Your task to perform on an android device: find which apps use the phone's location Image 0: 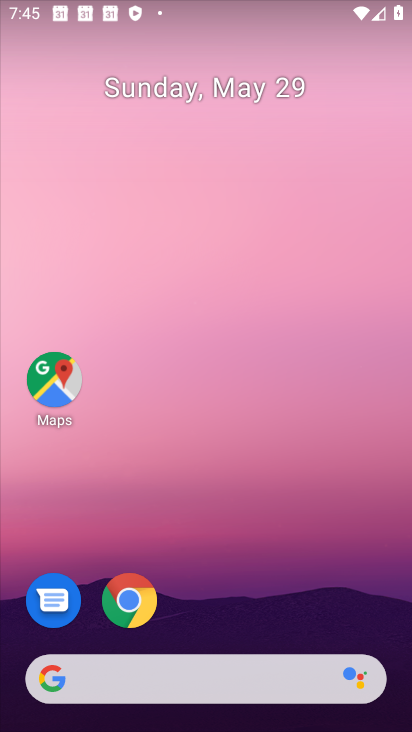
Step 0: drag from (253, 504) to (253, 214)
Your task to perform on an android device: find which apps use the phone's location Image 1: 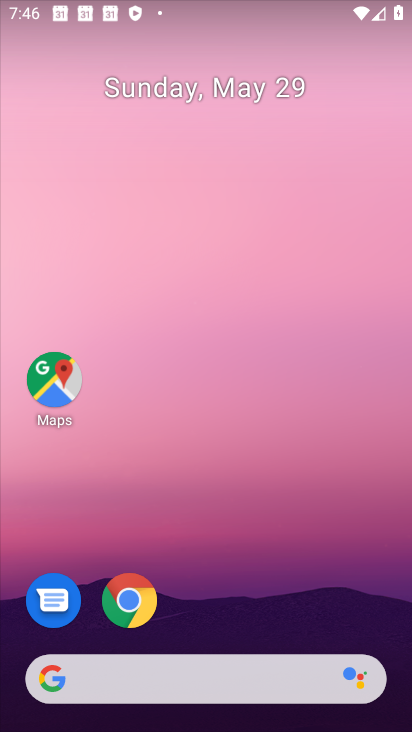
Step 1: drag from (310, 575) to (302, 206)
Your task to perform on an android device: find which apps use the phone's location Image 2: 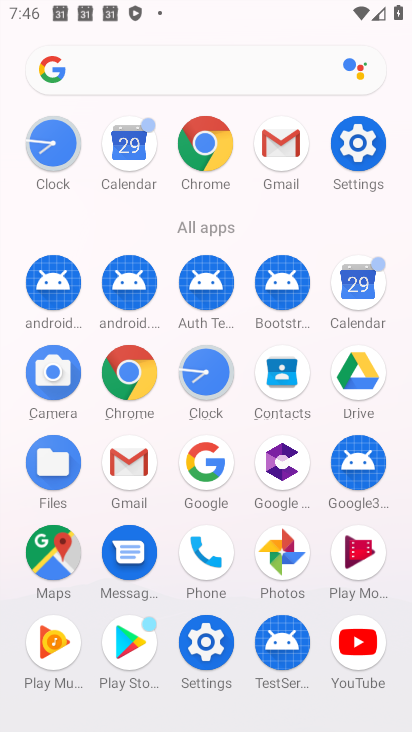
Step 2: click (191, 673)
Your task to perform on an android device: find which apps use the phone's location Image 3: 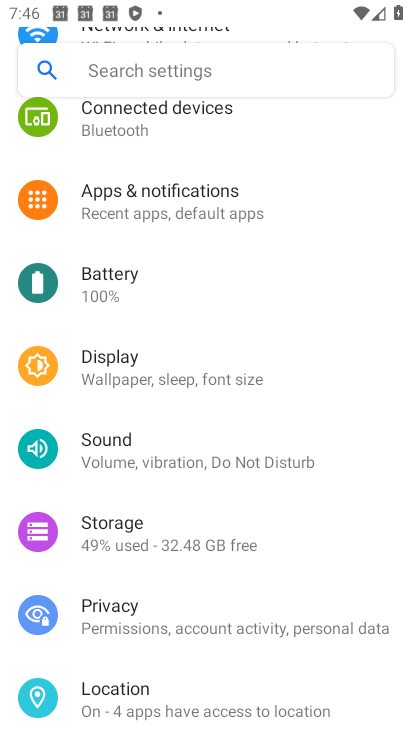
Step 3: drag from (263, 586) to (313, 306)
Your task to perform on an android device: find which apps use the phone's location Image 4: 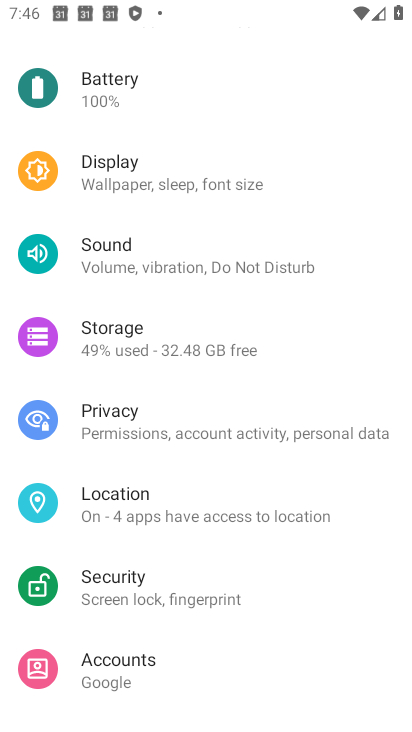
Step 4: click (226, 496)
Your task to perform on an android device: find which apps use the phone's location Image 5: 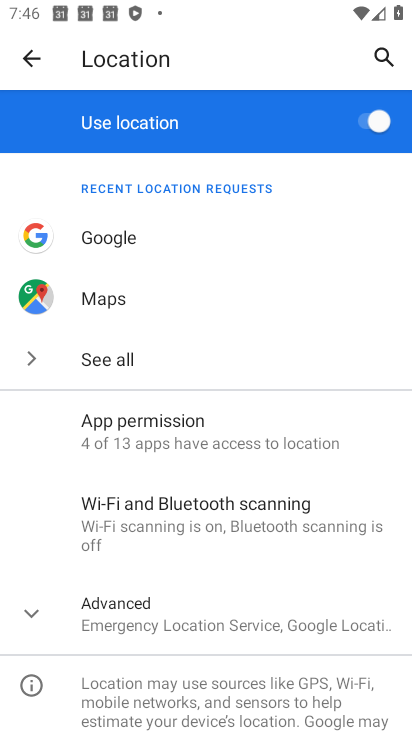
Step 5: task complete